Your task to perform on an android device: Do I have any events this weekend? Image 0: 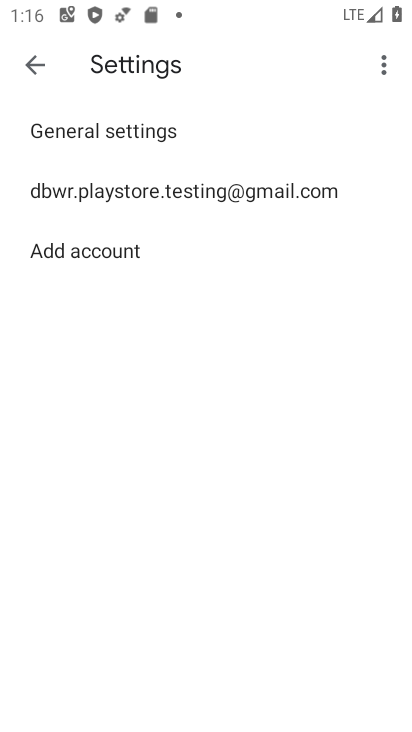
Step 0: press home button
Your task to perform on an android device: Do I have any events this weekend? Image 1: 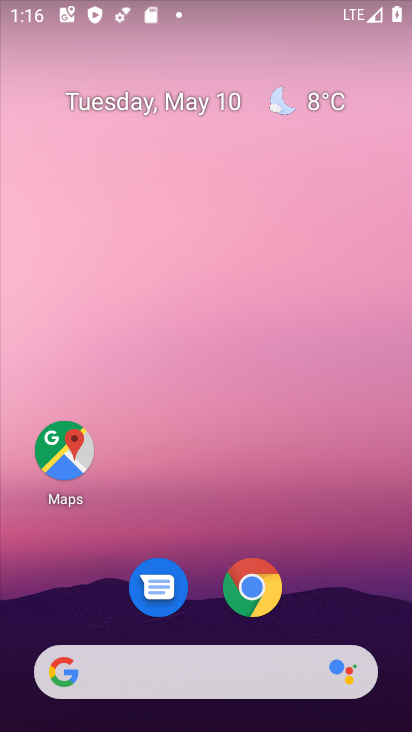
Step 1: drag from (268, 513) to (185, 143)
Your task to perform on an android device: Do I have any events this weekend? Image 2: 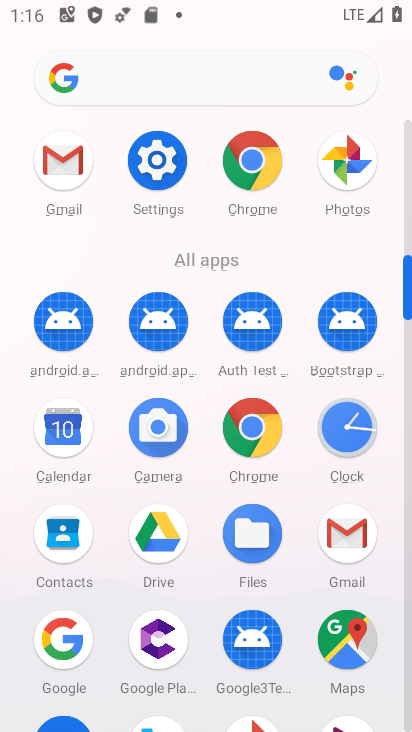
Step 2: click (60, 428)
Your task to perform on an android device: Do I have any events this weekend? Image 3: 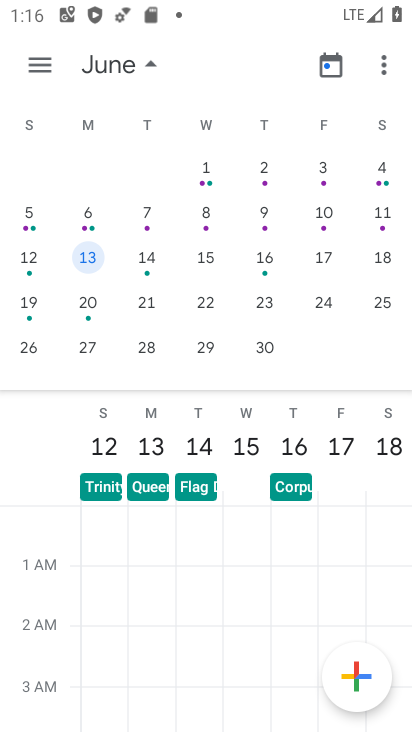
Step 3: click (116, 54)
Your task to perform on an android device: Do I have any events this weekend? Image 4: 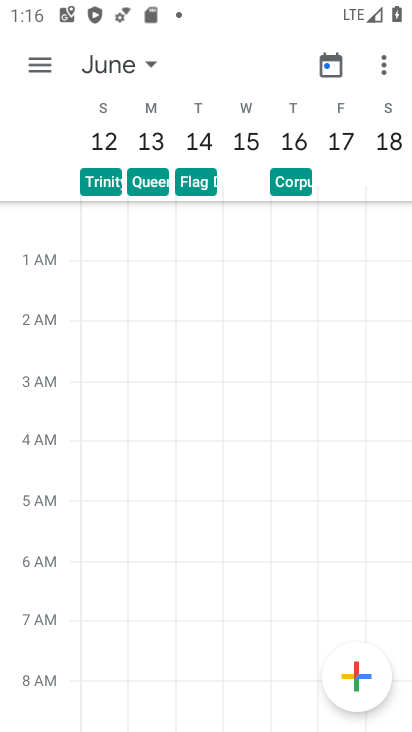
Step 4: click (139, 65)
Your task to perform on an android device: Do I have any events this weekend? Image 5: 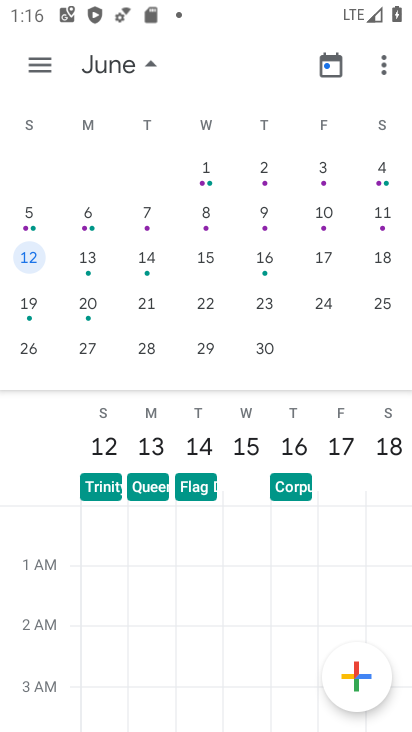
Step 5: drag from (146, 220) to (318, 199)
Your task to perform on an android device: Do I have any events this weekend? Image 6: 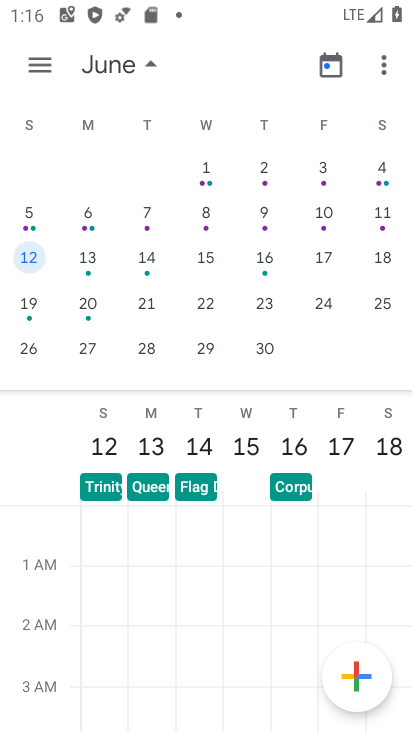
Step 6: drag from (100, 258) to (396, 242)
Your task to perform on an android device: Do I have any events this weekend? Image 7: 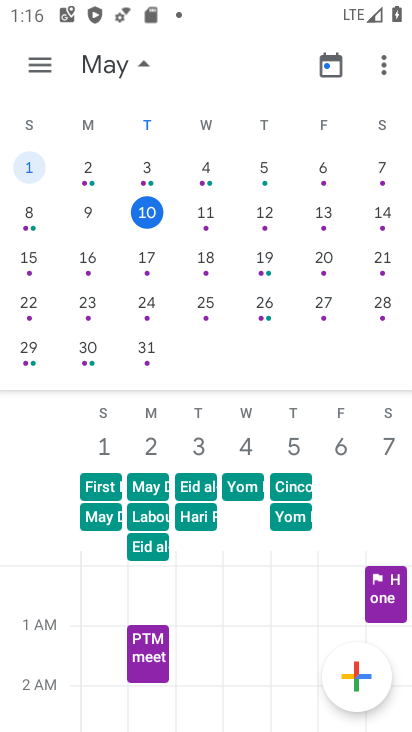
Step 7: click (324, 213)
Your task to perform on an android device: Do I have any events this weekend? Image 8: 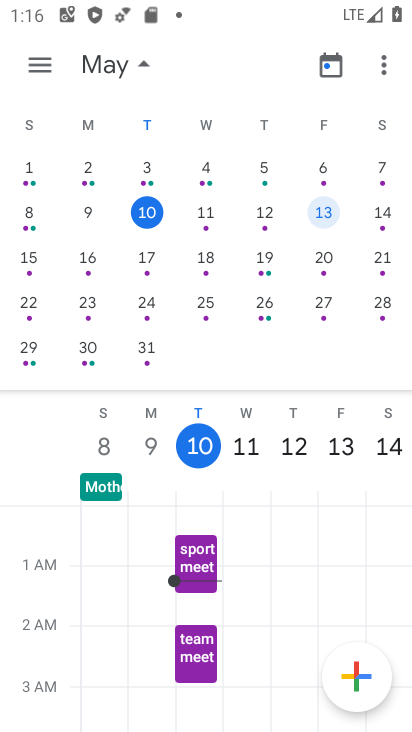
Step 8: click (45, 71)
Your task to perform on an android device: Do I have any events this weekend? Image 9: 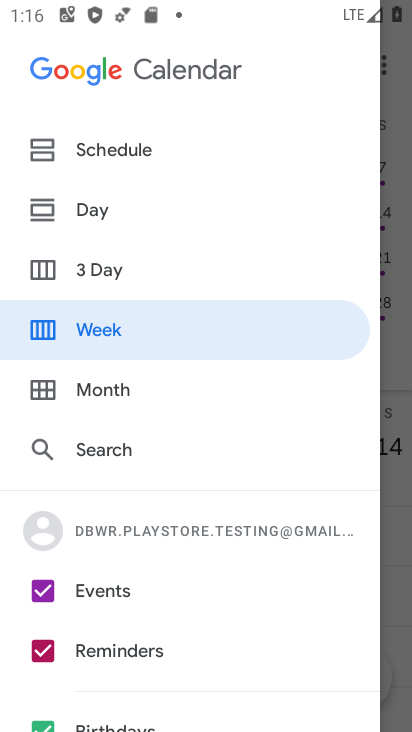
Step 9: click (97, 264)
Your task to perform on an android device: Do I have any events this weekend? Image 10: 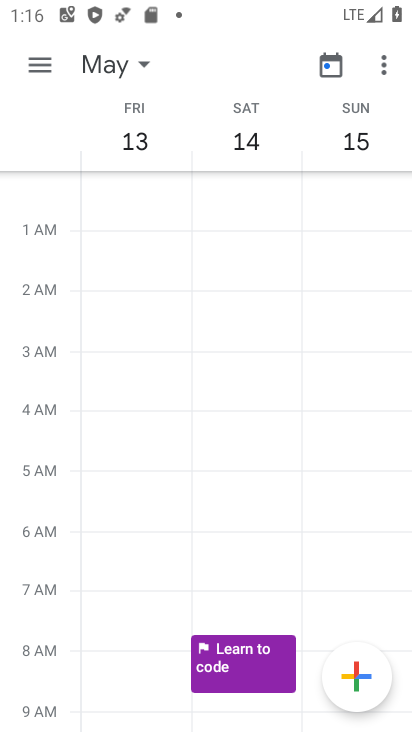
Step 10: task complete